Your task to perform on an android device: turn off priority inbox in the gmail app Image 0: 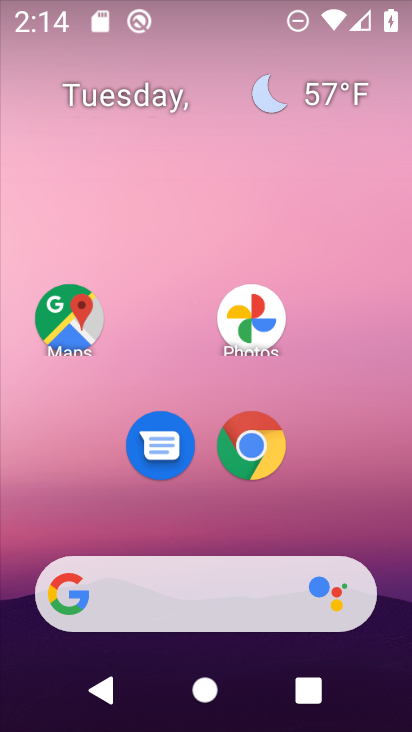
Step 0: drag from (380, 522) to (320, 152)
Your task to perform on an android device: turn off priority inbox in the gmail app Image 1: 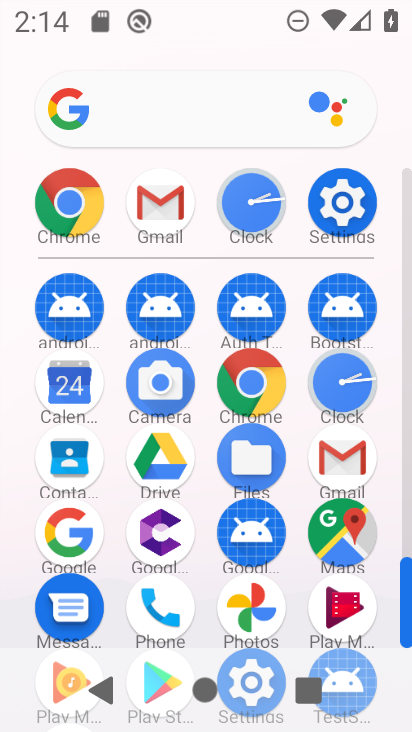
Step 1: click (350, 478)
Your task to perform on an android device: turn off priority inbox in the gmail app Image 2: 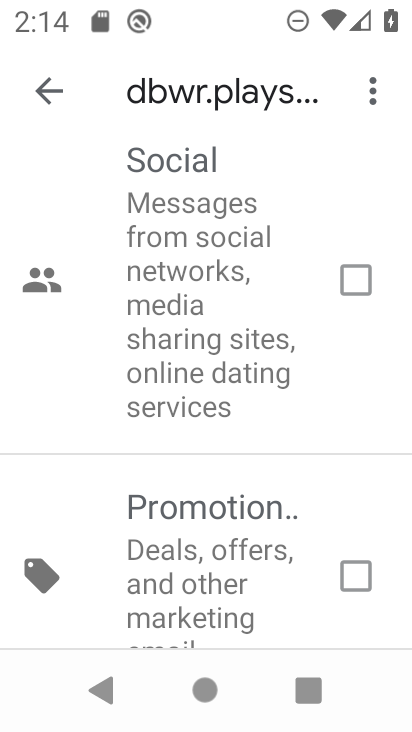
Step 2: click (47, 92)
Your task to perform on an android device: turn off priority inbox in the gmail app Image 3: 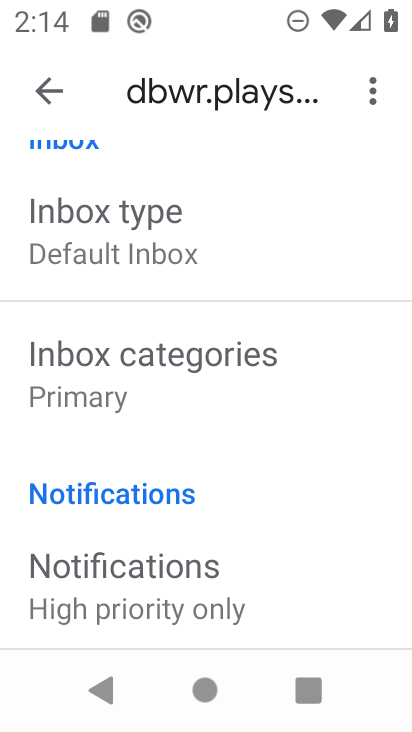
Step 3: drag from (372, 227) to (351, 382)
Your task to perform on an android device: turn off priority inbox in the gmail app Image 4: 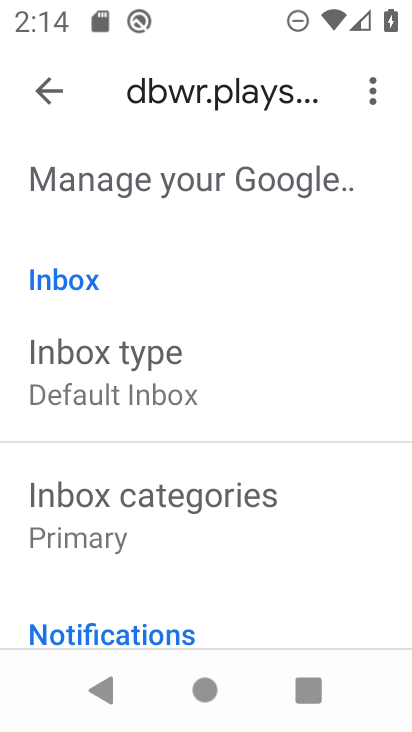
Step 4: drag from (302, 217) to (303, 355)
Your task to perform on an android device: turn off priority inbox in the gmail app Image 5: 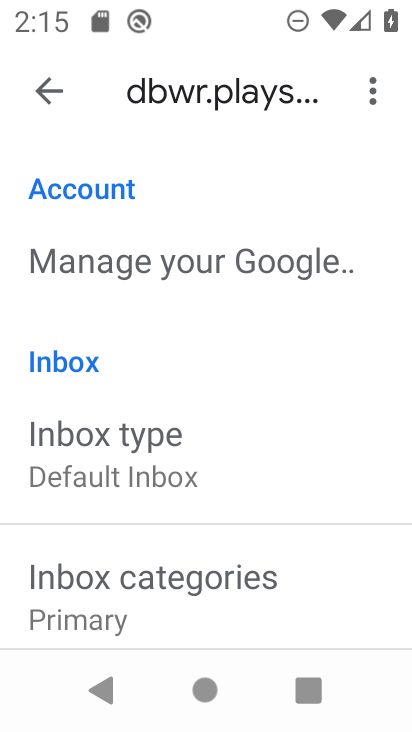
Step 5: drag from (304, 246) to (311, 413)
Your task to perform on an android device: turn off priority inbox in the gmail app Image 6: 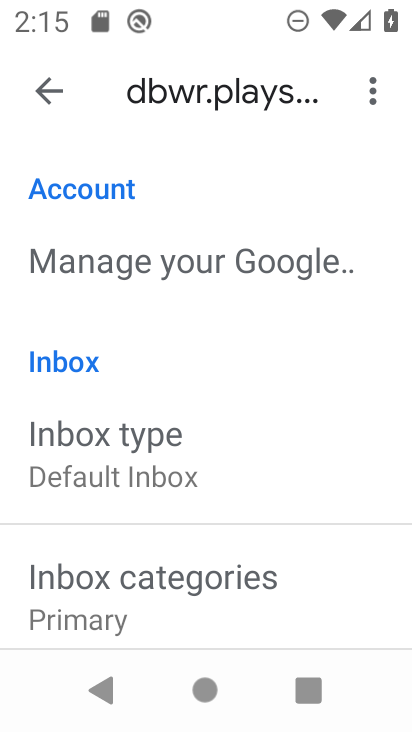
Step 6: drag from (281, 496) to (241, 353)
Your task to perform on an android device: turn off priority inbox in the gmail app Image 7: 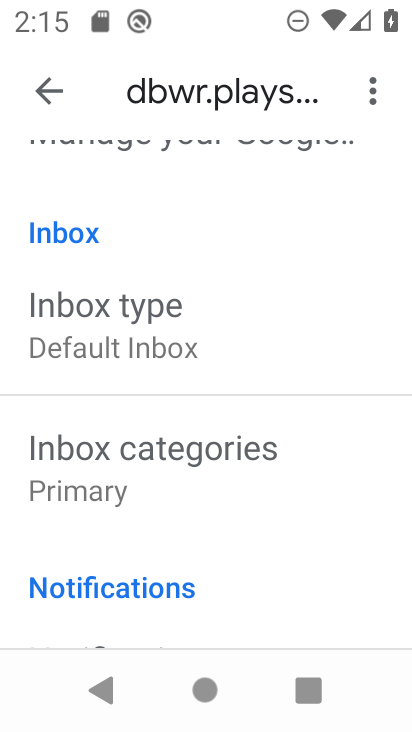
Step 7: drag from (231, 453) to (192, 254)
Your task to perform on an android device: turn off priority inbox in the gmail app Image 8: 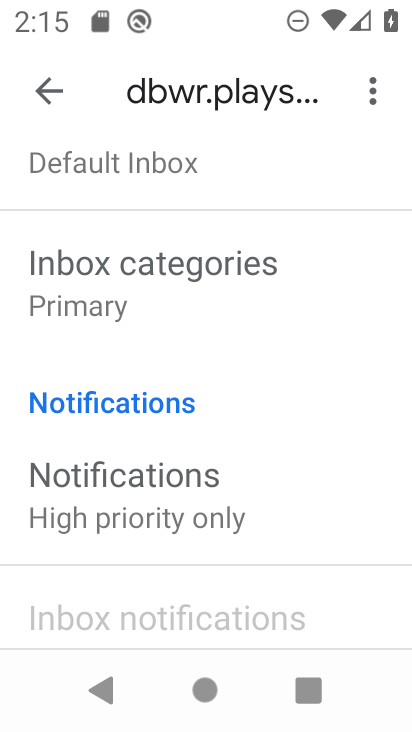
Step 8: click (165, 191)
Your task to perform on an android device: turn off priority inbox in the gmail app Image 9: 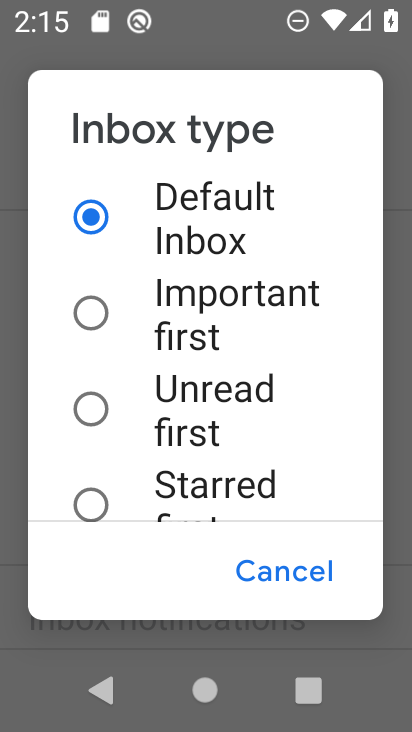
Step 9: drag from (348, 483) to (345, 336)
Your task to perform on an android device: turn off priority inbox in the gmail app Image 10: 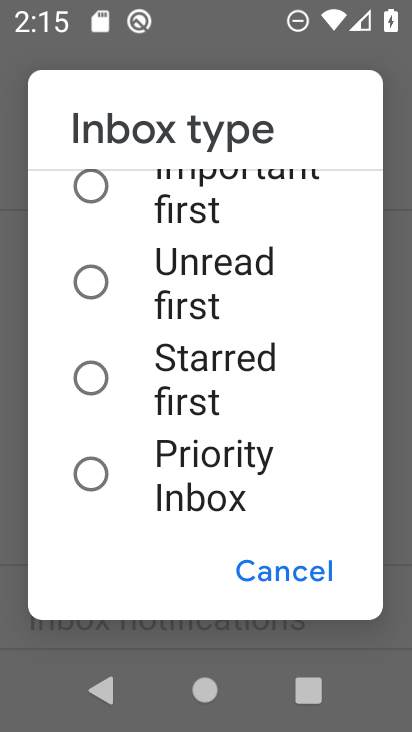
Step 10: drag from (325, 473) to (295, 325)
Your task to perform on an android device: turn off priority inbox in the gmail app Image 11: 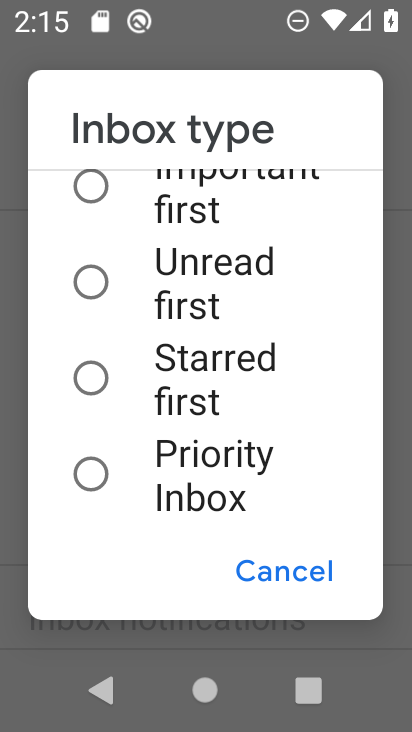
Step 11: click (205, 485)
Your task to perform on an android device: turn off priority inbox in the gmail app Image 12: 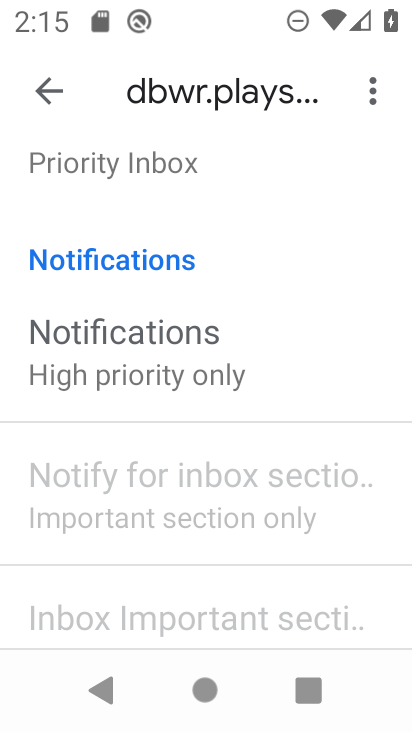
Step 12: task complete